Your task to perform on an android device: Search for Italian restaurants on Maps Image 0: 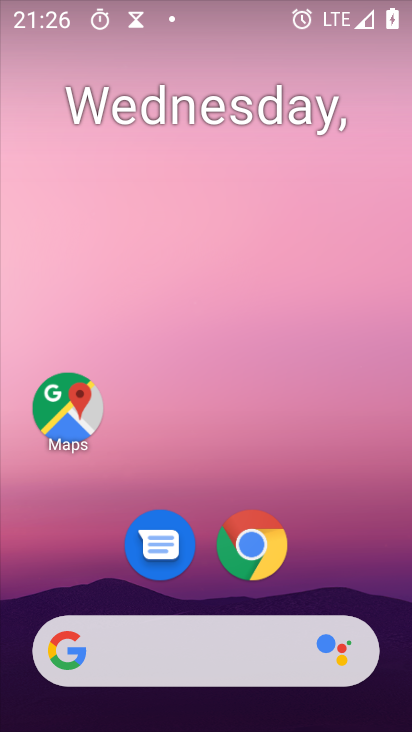
Step 0: press home button
Your task to perform on an android device: Search for Italian restaurants on Maps Image 1: 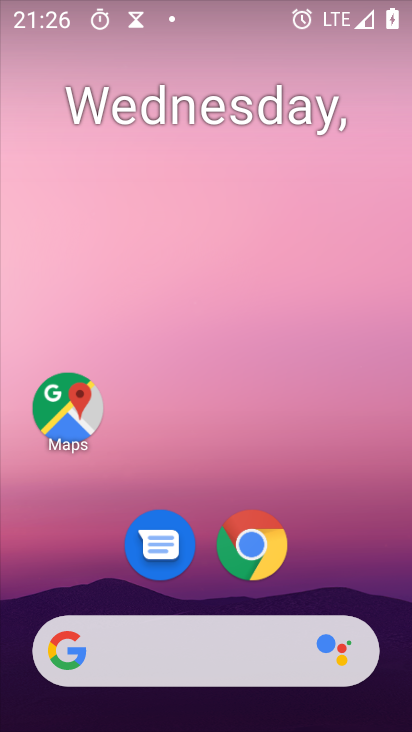
Step 1: click (72, 446)
Your task to perform on an android device: Search for Italian restaurants on Maps Image 2: 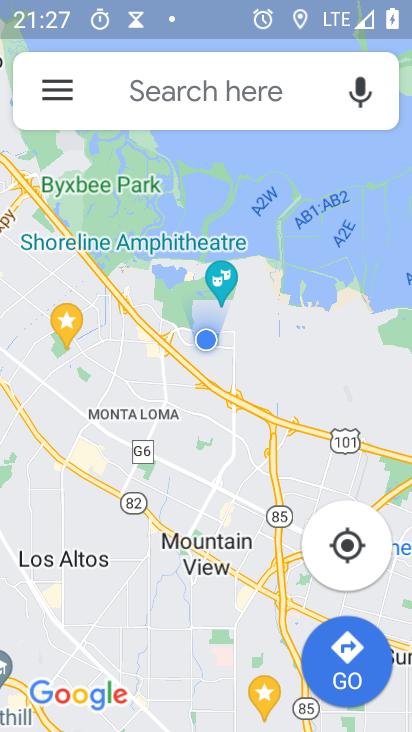
Step 2: click (201, 86)
Your task to perform on an android device: Search for Italian restaurants on Maps Image 3: 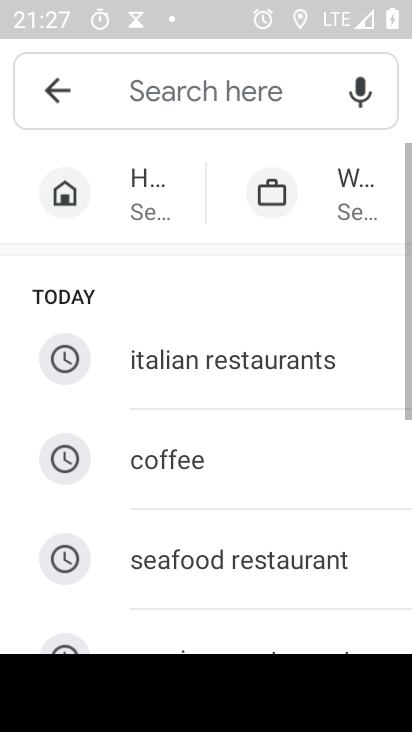
Step 3: click (177, 365)
Your task to perform on an android device: Search for Italian restaurants on Maps Image 4: 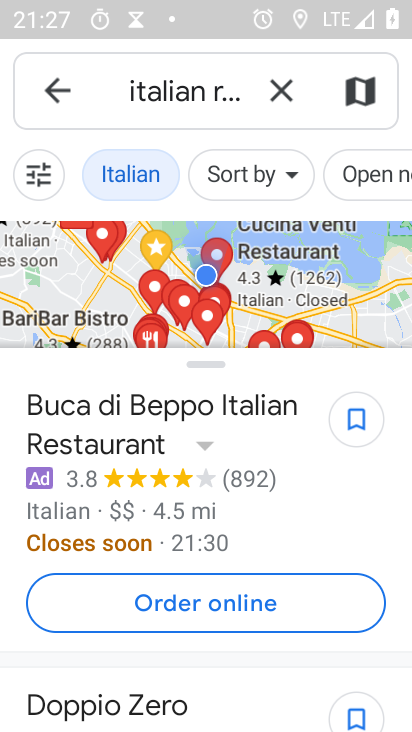
Step 4: task complete